Your task to perform on an android device: Open privacy settings Image 0: 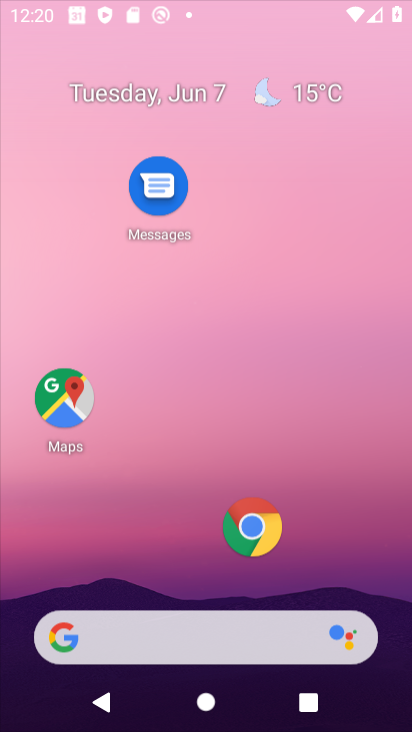
Step 0: drag from (180, 562) to (255, 248)
Your task to perform on an android device: Open privacy settings Image 1: 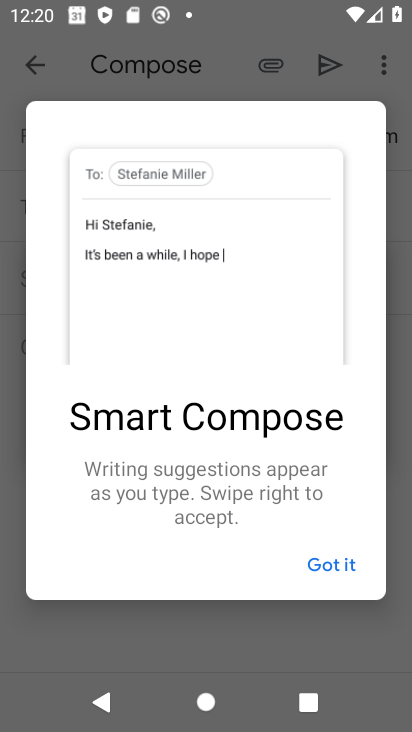
Step 1: press home button
Your task to perform on an android device: Open privacy settings Image 2: 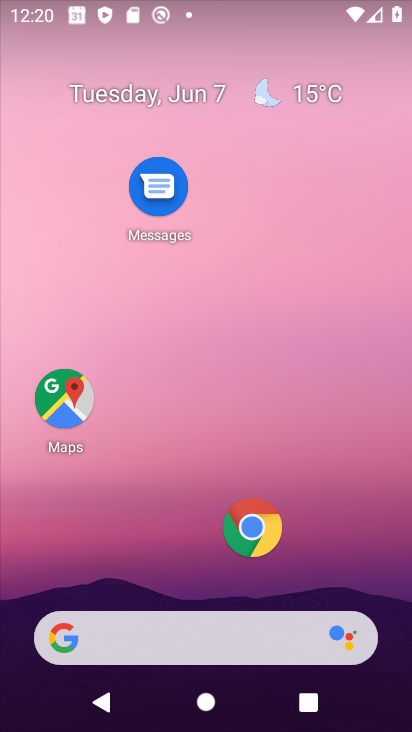
Step 2: drag from (112, 602) to (217, 146)
Your task to perform on an android device: Open privacy settings Image 3: 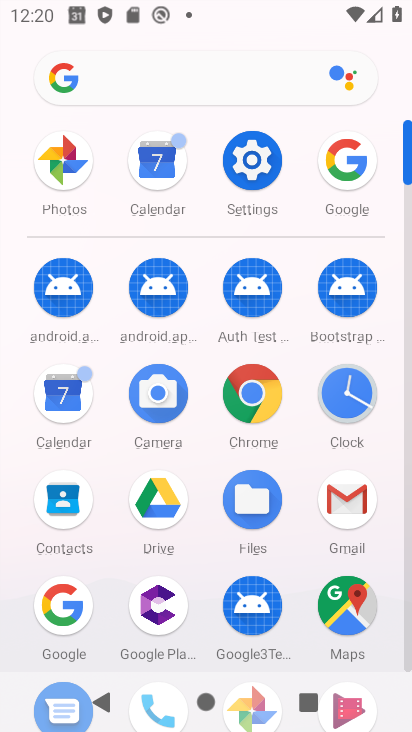
Step 3: click (244, 155)
Your task to perform on an android device: Open privacy settings Image 4: 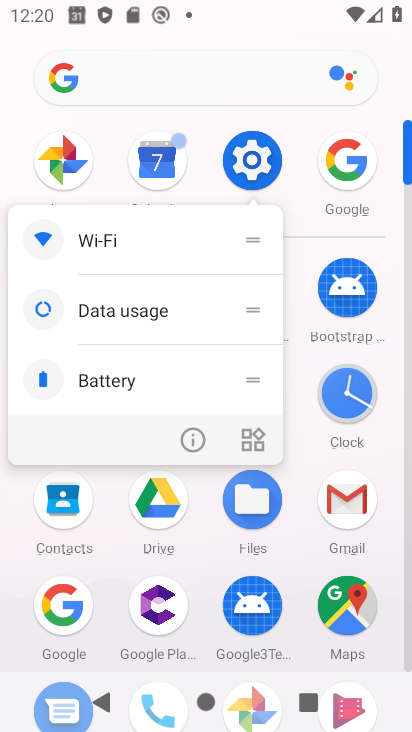
Step 4: click (244, 171)
Your task to perform on an android device: Open privacy settings Image 5: 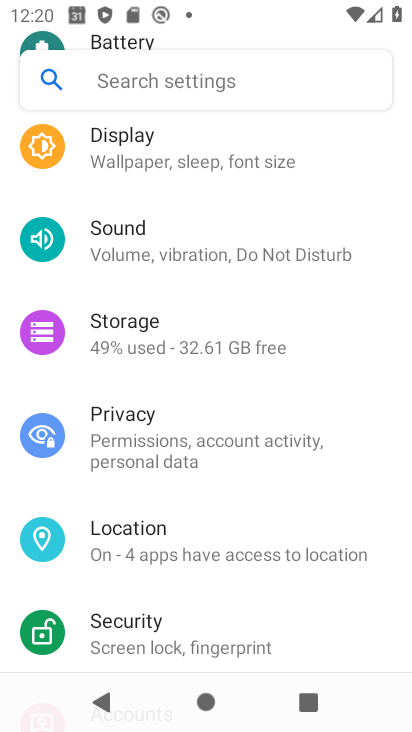
Step 5: click (139, 431)
Your task to perform on an android device: Open privacy settings Image 6: 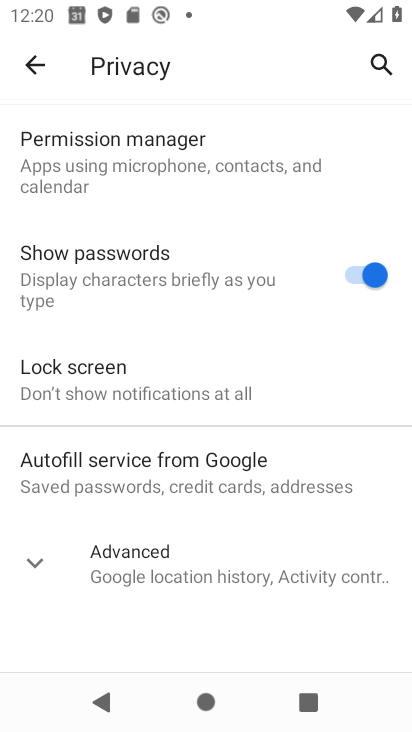
Step 6: click (120, 535)
Your task to perform on an android device: Open privacy settings Image 7: 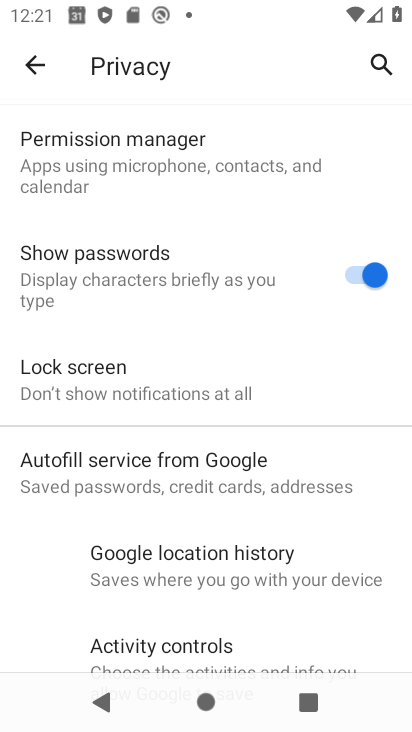
Step 7: task complete